Your task to perform on an android device: Open settings on Google Maps Image 0: 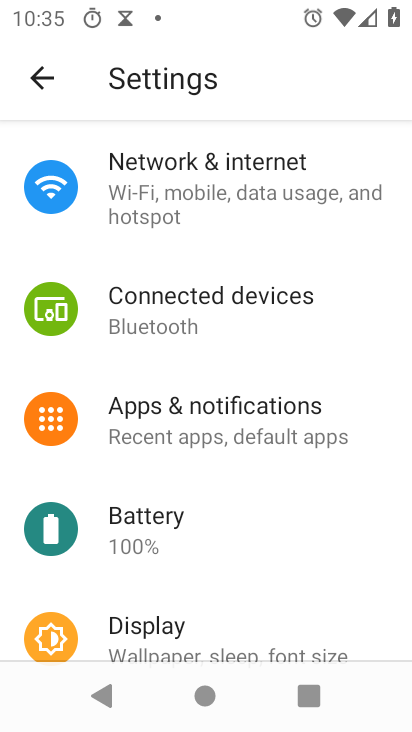
Step 0: press home button
Your task to perform on an android device: Open settings on Google Maps Image 1: 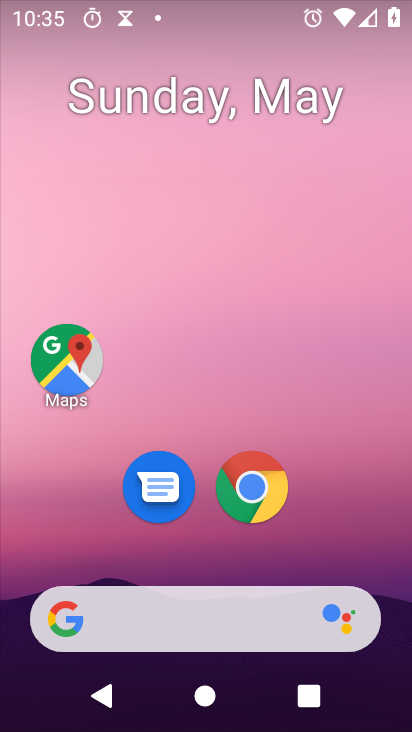
Step 1: drag from (337, 554) to (410, 106)
Your task to perform on an android device: Open settings on Google Maps Image 2: 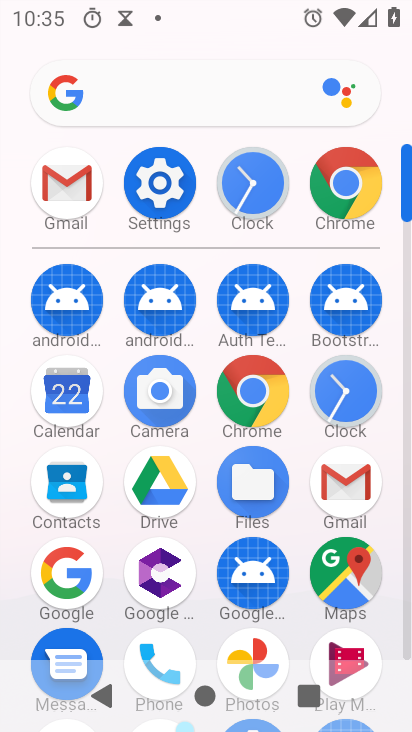
Step 2: click (339, 570)
Your task to perform on an android device: Open settings on Google Maps Image 3: 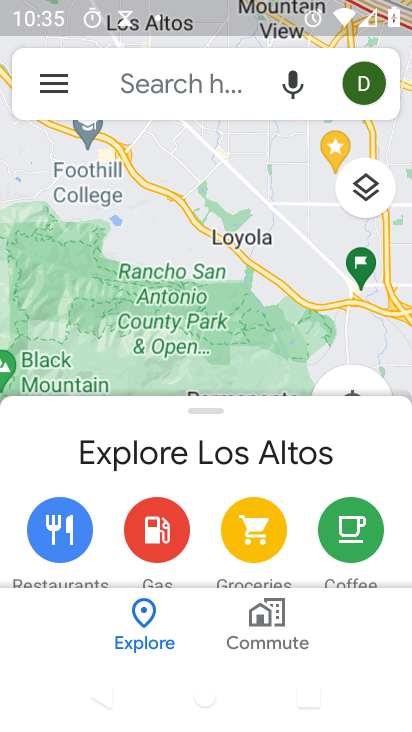
Step 3: click (53, 85)
Your task to perform on an android device: Open settings on Google Maps Image 4: 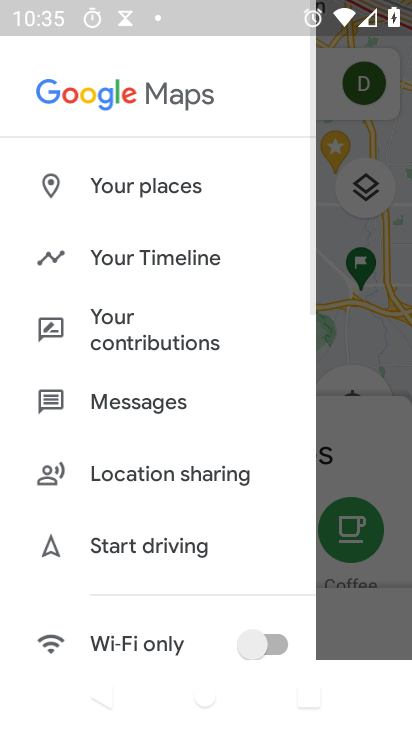
Step 4: drag from (172, 602) to (227, 175)
Your task to perform on an android device: Open settings on Google Maps Image 5: 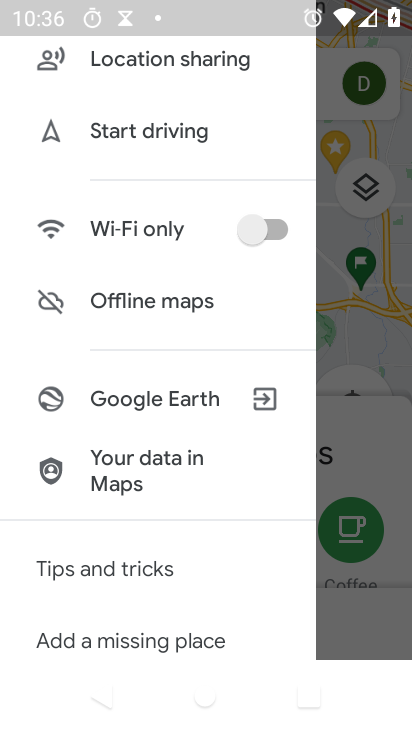
Step 5: drag from (139, 629) to (177, 224)
Your task to perform on an android device: Open settings on Google Maps Image 6: 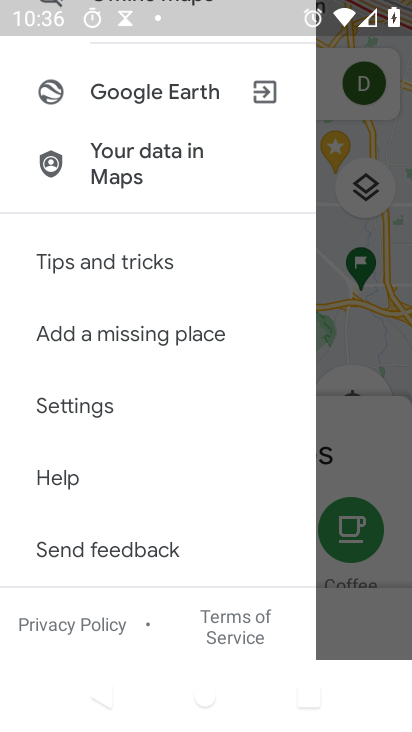
Step 6: click (78, 417)
Your task to perform on an android device: Open settings on Google Maps Image 7: 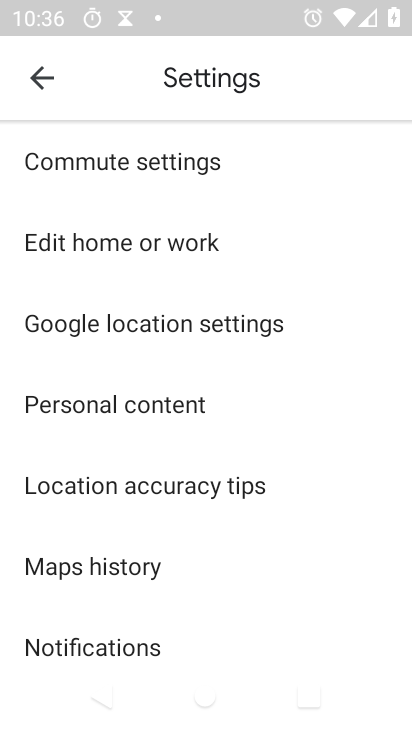
Step 7: task complete